Your task to perform on an android device: Open Google Chrome and click the shortcut for Amazon.com Image 0: 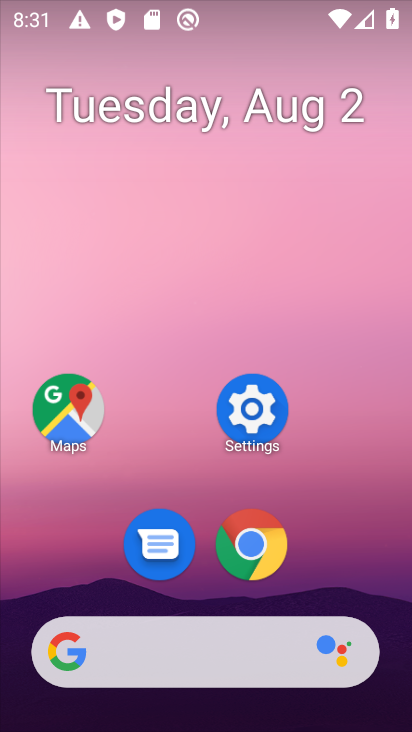
Step 0: click (261, 554)
Your task to perform on an android device: Open Google Chrome and click the shortcut for Amazon.com Image 1: 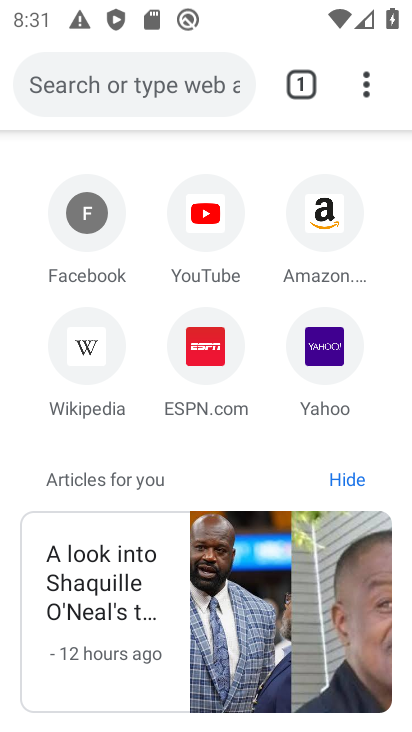
Step 1: click (328, 220)
Your task to perform on an android device: Open Google Chrome and click the shortcut for Amazon.com Image 2: 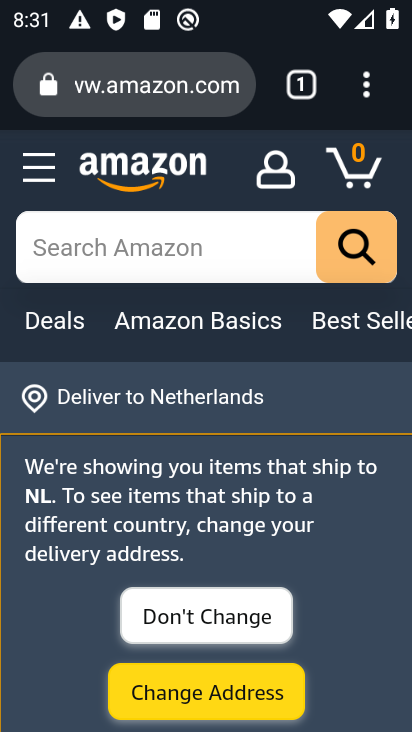
Step 2: task complete